Your task to perform on an android device: Open the stopwatch Image 0: 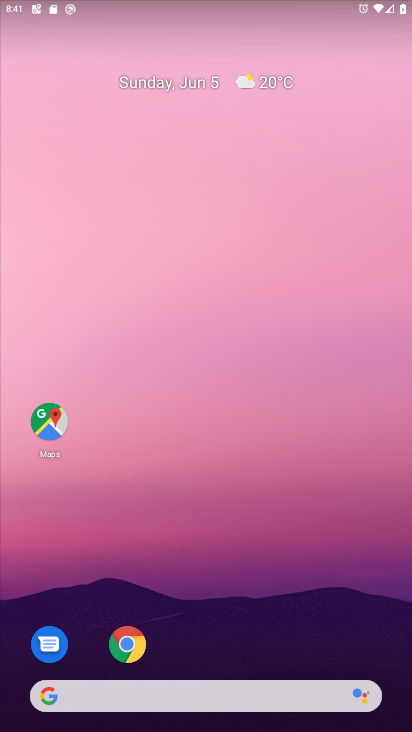
Step 0: drag from (320, 623) to (297, 187)
Your task to perform on an android device: Open the stopwatch Image 1: 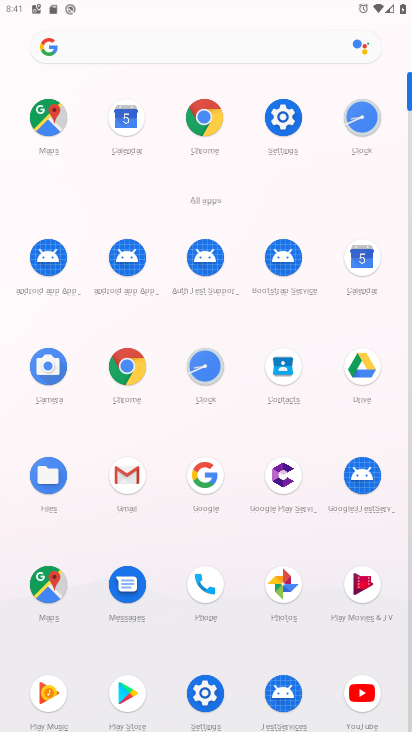
Step 1: click (363, 138)
Your task to perform on an android device: Open the stopwatch Image 2: 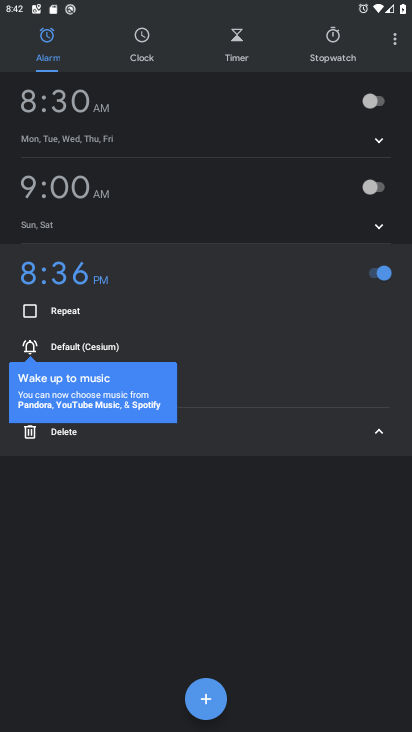
Step 2: click (333, 41)
Your task to perform on an android device: Open the stopwatch Image 3: 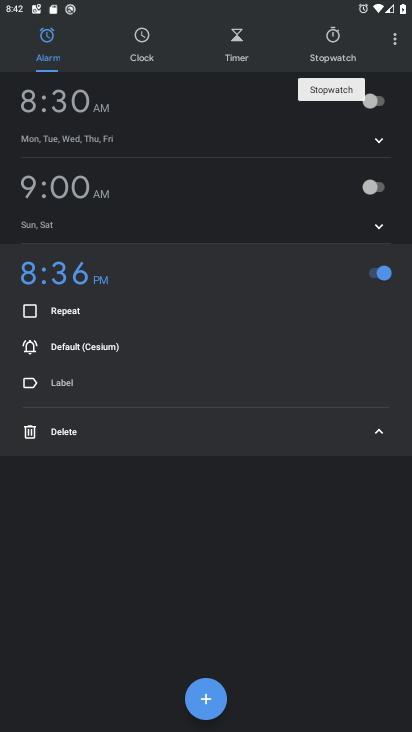
Step 3: click (333, 41)
Your task to perform on an android device: Open the stopwatch Image 4: 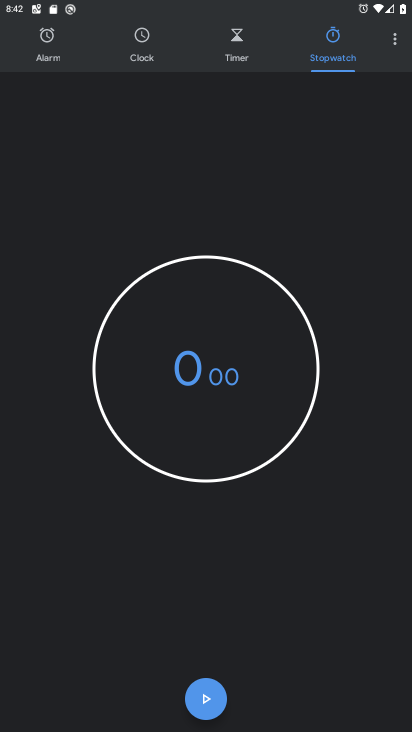
Step 4: task complete